Your task to perform on an android device: Open Google Maps and go to "Timeline" Image 0: 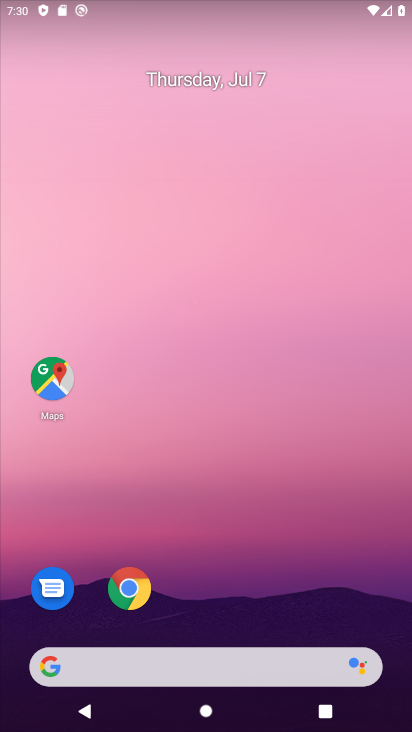
Step 0: drag from (219, 564) to (229, 30)
Your task to perform on an android device: Open Google Maps and go to "Timeline" Image 1: 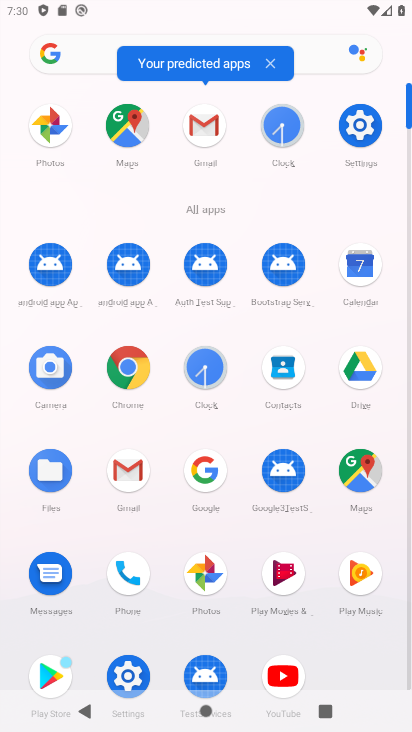
Step 1: click (117, 129)
Your task to perform on an android device: Open Google Maps and go to "Timeline" Image 2: 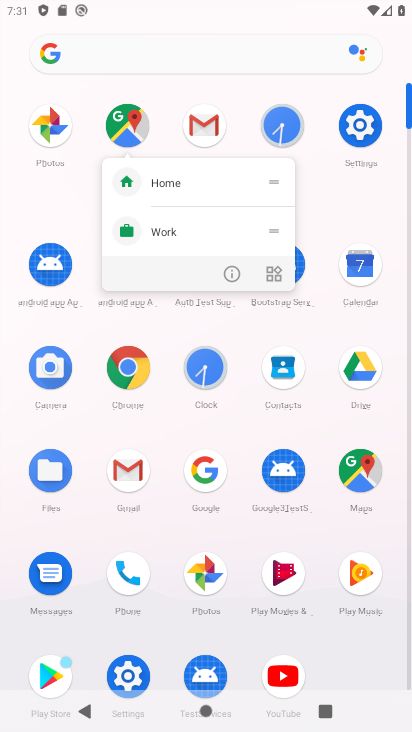
Step 2: click (228, 274)
Your task to perform on an android device: Open Google Maps and go to "Timeline" Image 3: 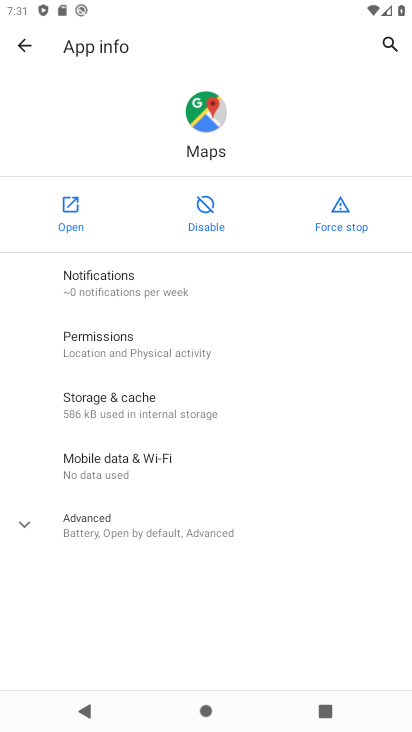
Step 3: click (45, 220)
Your task to perform on an android device: Open Google Maps and go to "Timeline" Image 4: 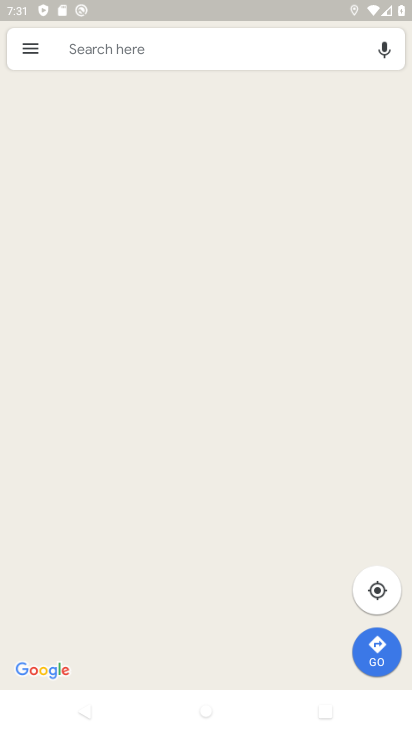
Step 4: drag from (241, 429) to (245, 326)
Your task to perform on an android device: Open Google Maps and go to "Timeline" Image 5: 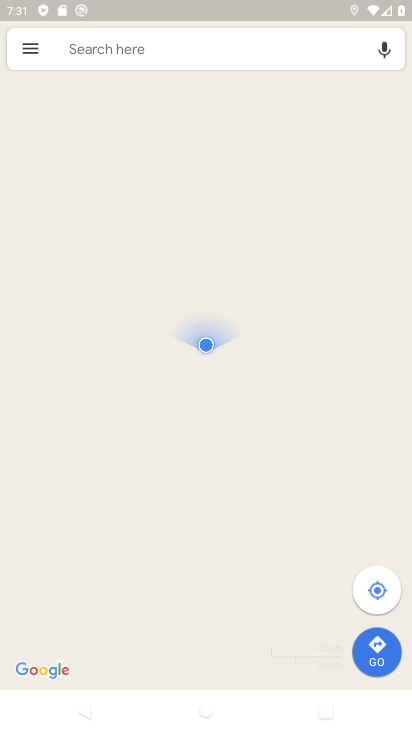
Step 5: drag from (167, 460) to (186, 183)
Your task to perform on an android device: Open Google Maps and go to "Timeline" Image 6: 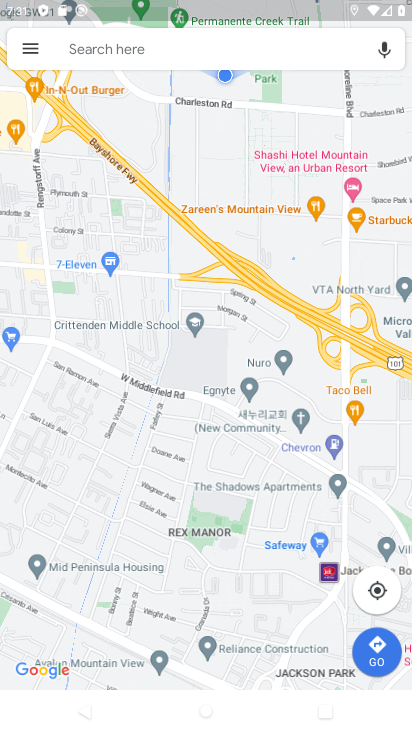
Step 6: click (24, 58)
Your task to perform on an android device: Open Google Maps and go to "Timeline" Image 7: 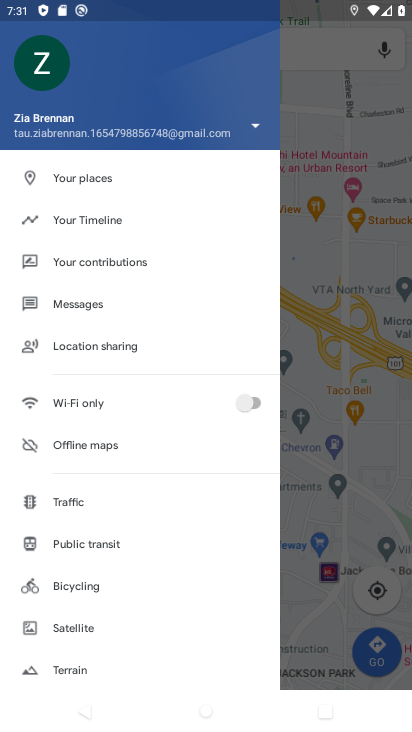
Step 7: click (89, 214)
Your task to perform on an android device: Open Google Maps and go to "Timeline" Image 8: 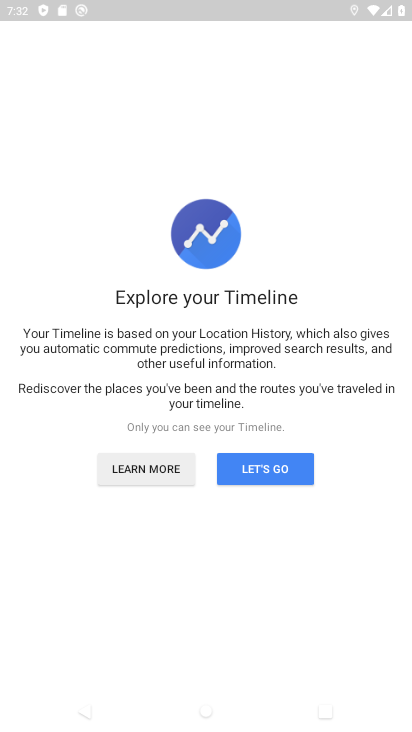
Step 8: click (270, 470)
Your task to perform on an android device: Open Google Maps and go to "Timeline" Image 9: 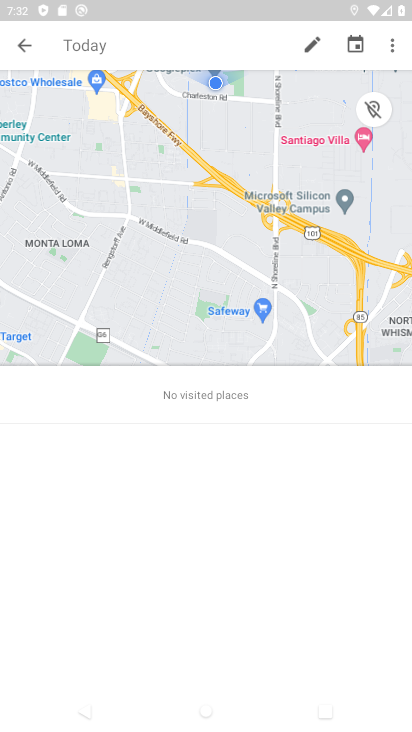
Step 9: task complete